Your task to perform on an android device: Open maps Image 0: 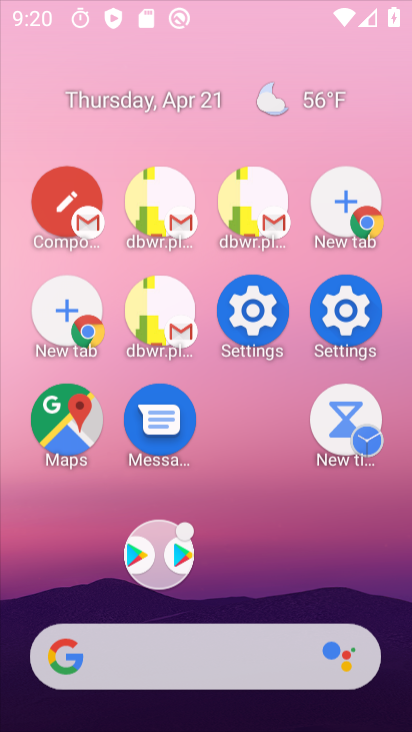
Step 0: drag from (217, 102) to (174, 21)
Your task to perform on an android device: Open maps Image 1: 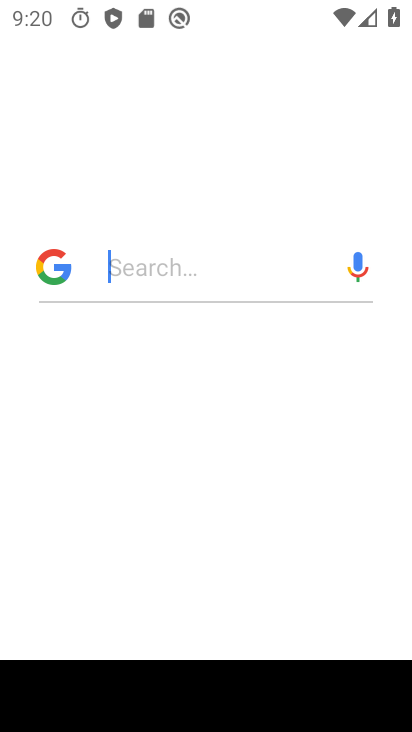
Step 1: click (181, 57)
Your task to perform on an android device: Open maps Image 2: 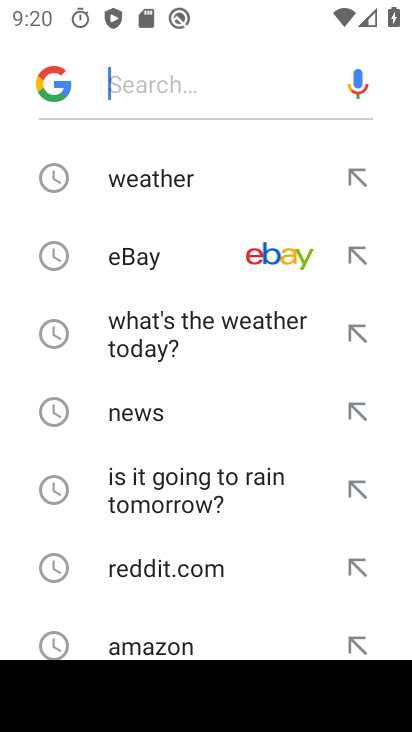
Step 2: press home button
Your task to perform on an android device: Open maps Image 3: 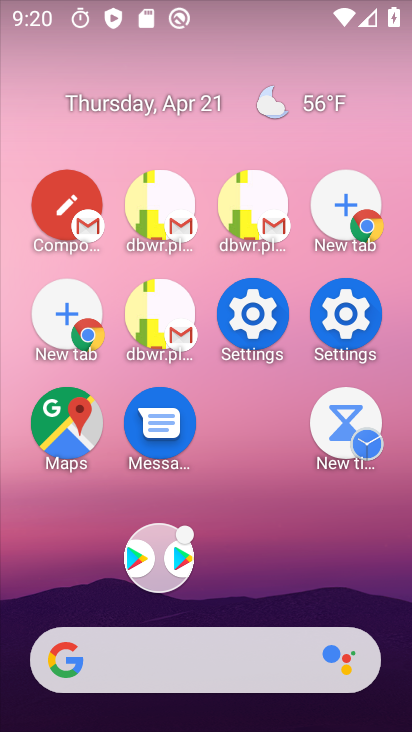
Step 3: drag from (259, 678) to (195, 59)
Your task to perform on an android device: Open maps Image 4: 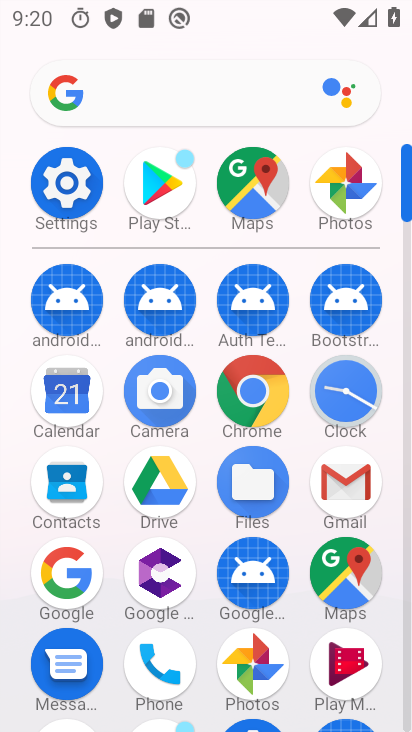
Step 4: click (354, 574)
Your task to perform on an android device: Open maps Image 5: 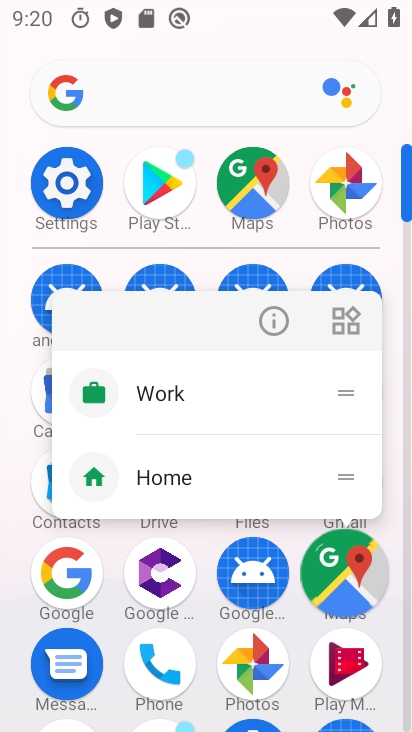
Step 5: click (354, 574)
Your task to perform on an android device: Open maps Image 6: 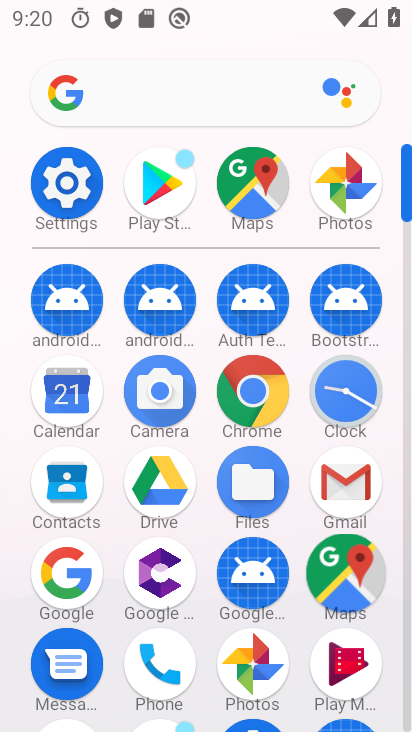
Step 6: click (354, 574)
Your task to perform on an android device: Open maps Image 7: 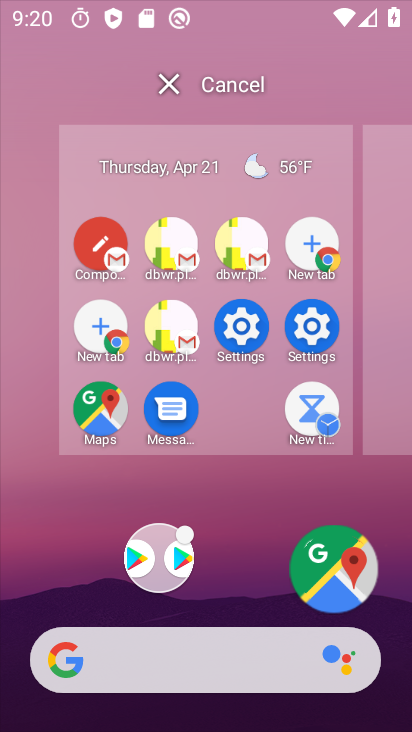
Step 7: drag from (343, 570) to (337, 520)
Your task to perform on an android device: Open maps Image 8: 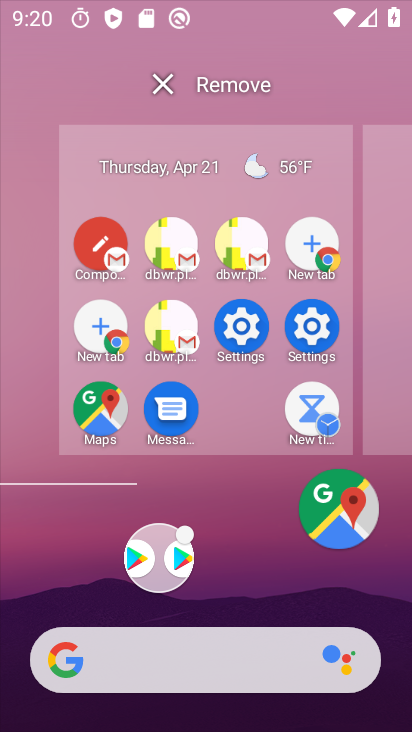
Step 8: drag from (337, 512) to (337, 549)
Your task to perform on an android device: Open maps Image 9: 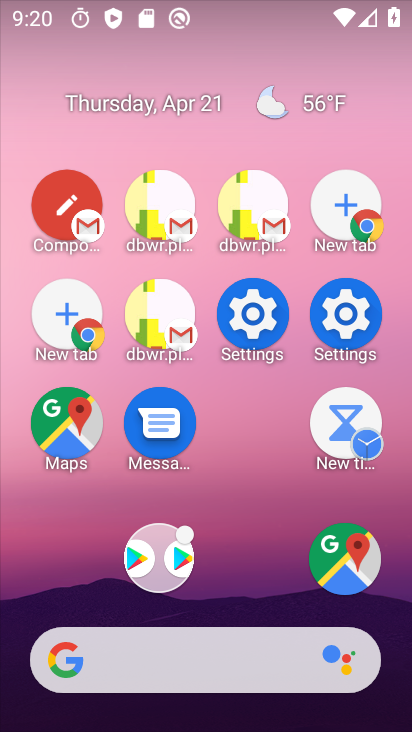
Step 9: drag from (339, 612) to (145, 8)
Your task to perform on an android device: Open maps Image 10: 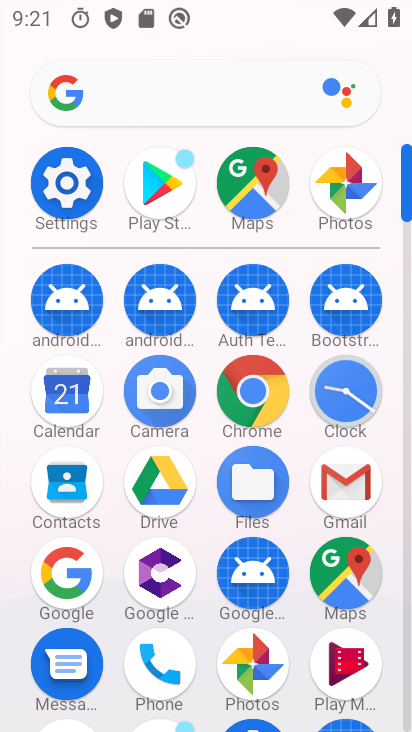
Step 10: click (248, 183)
Your task to perform on an android device: Open maps Image 11: 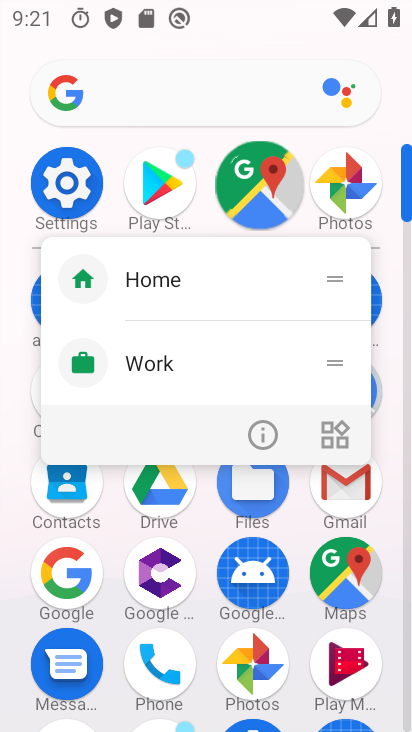
Step 11: click (266, 195)
Your task to perform on an android device: Open maps Image 12: 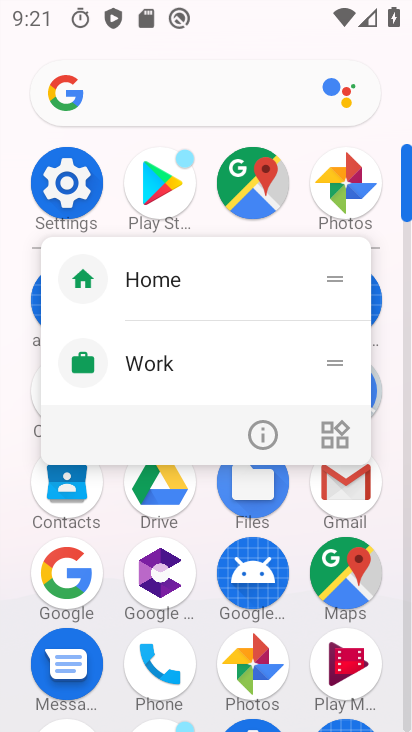
Step 12: click (266, 195)
Your task to perform on an android device: Open maps Image 13: 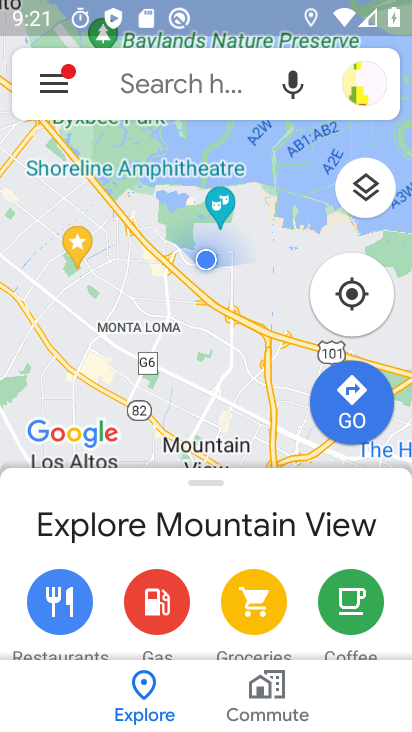
Step 13: task complete